Your task to perform on an android device: Show me recent news Image 0: 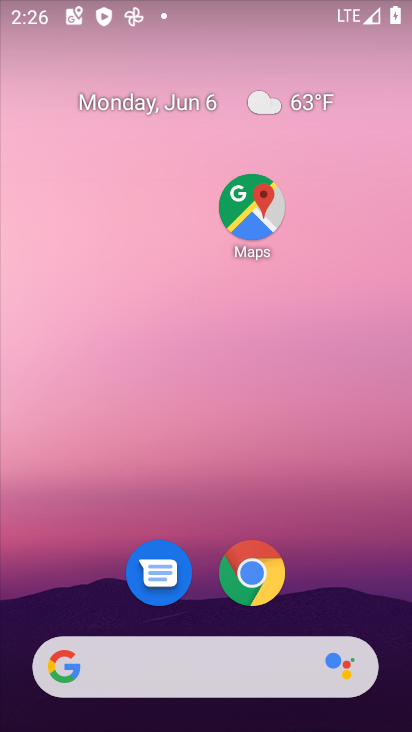
Step 0: drag from (192, 481) to (229, 5)
Your task to perform on an android device: Show me recent news Image 1: 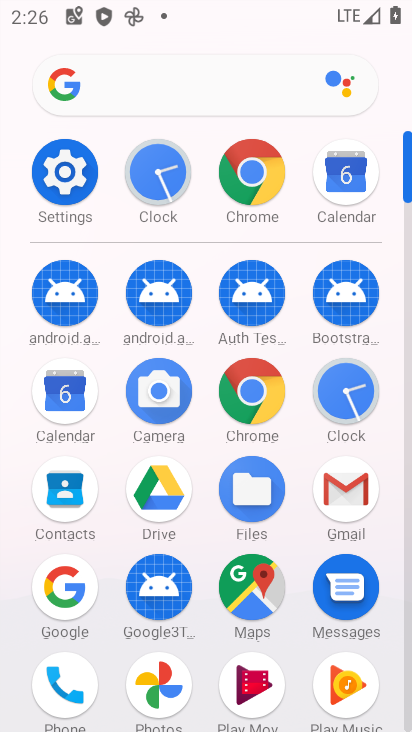
Step 1: click (73, 582)
Your task to perform on an android device: Show me recent news Image 2: 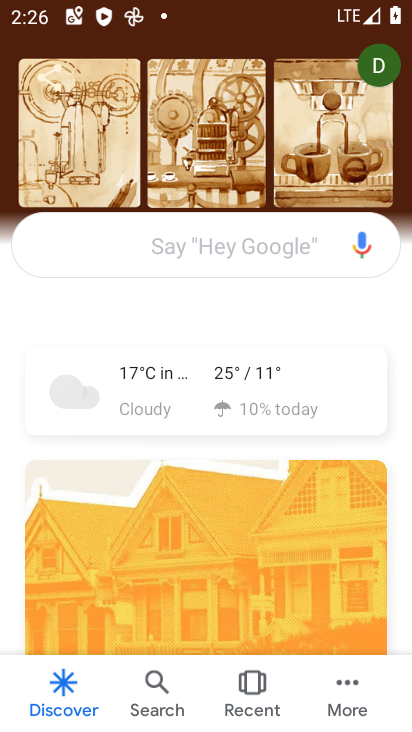
Step 2: task complete